Your task to perform on an android device: Show me the alarms in the clock app Image 0: 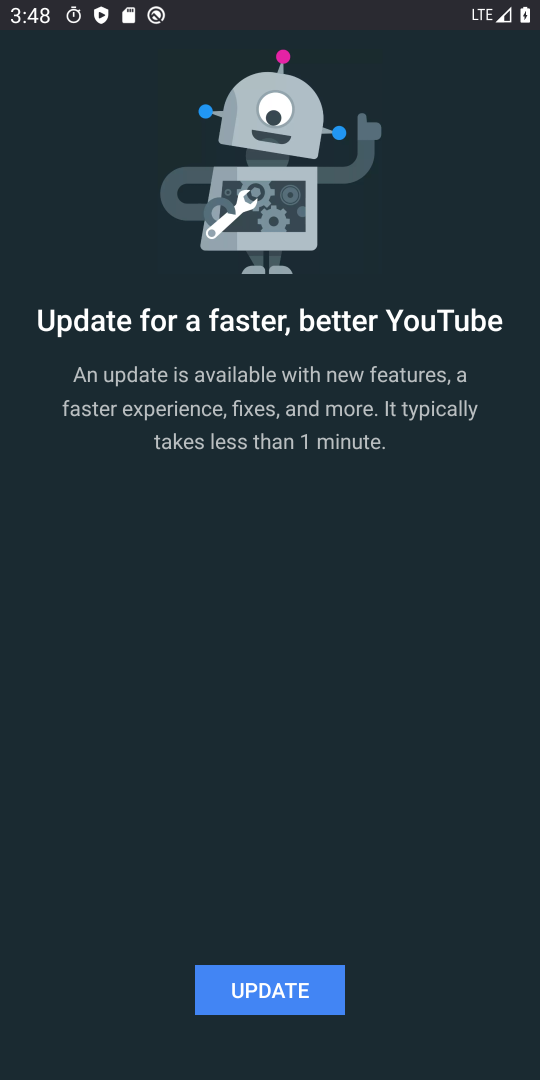
Step 0: press home button
Your task to perform on an android device: Show me the alarms in the clock app Image 1: 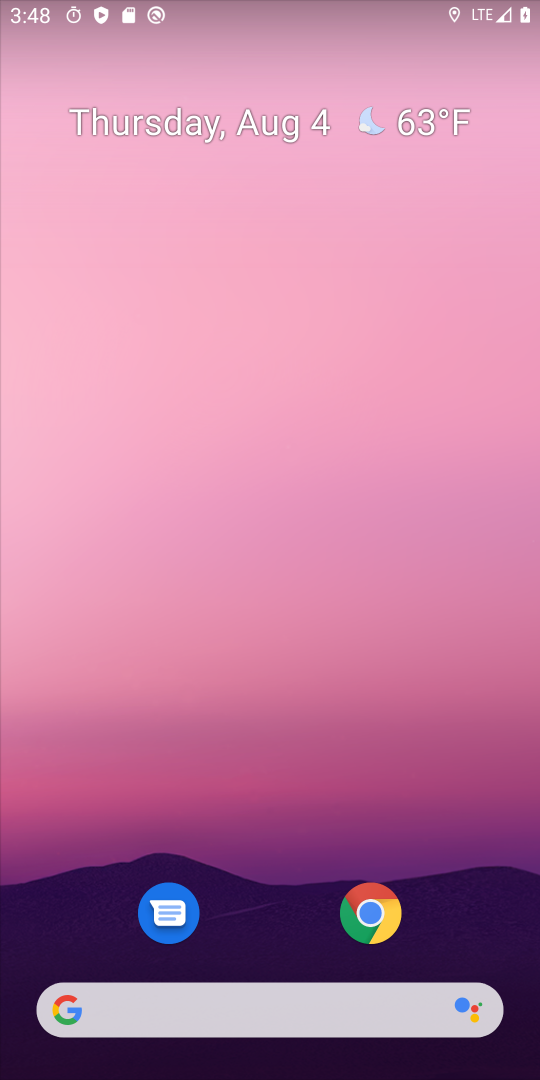
Step 1: drag from (373, 1032) to (421, 3)
Your task to perform on an android device: Show me the alarms in the clock app Image 2: 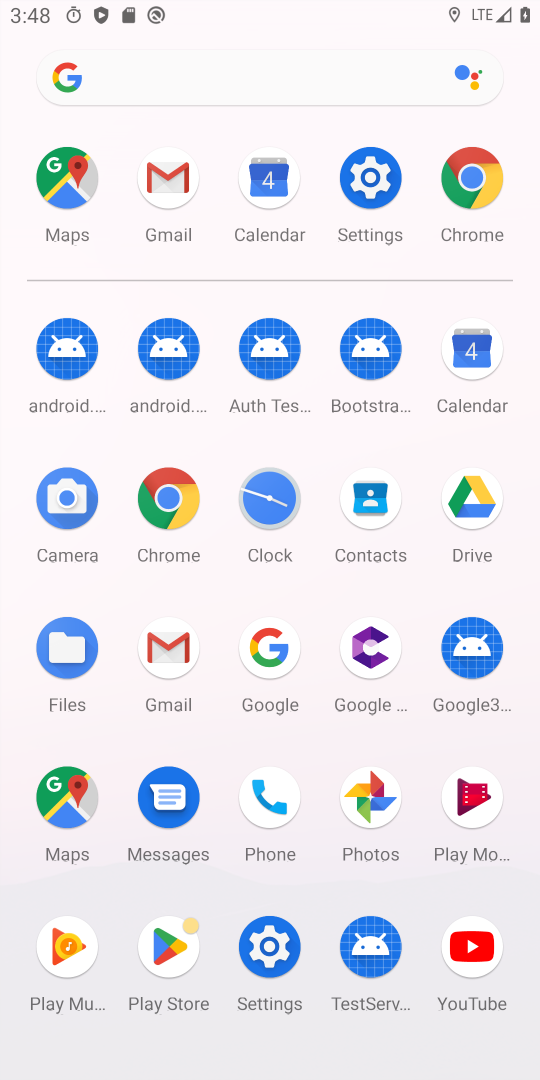
Step 2: click (270, 505)
Your task to perform on an android device: Show me the alarms in the clock app Image 3: 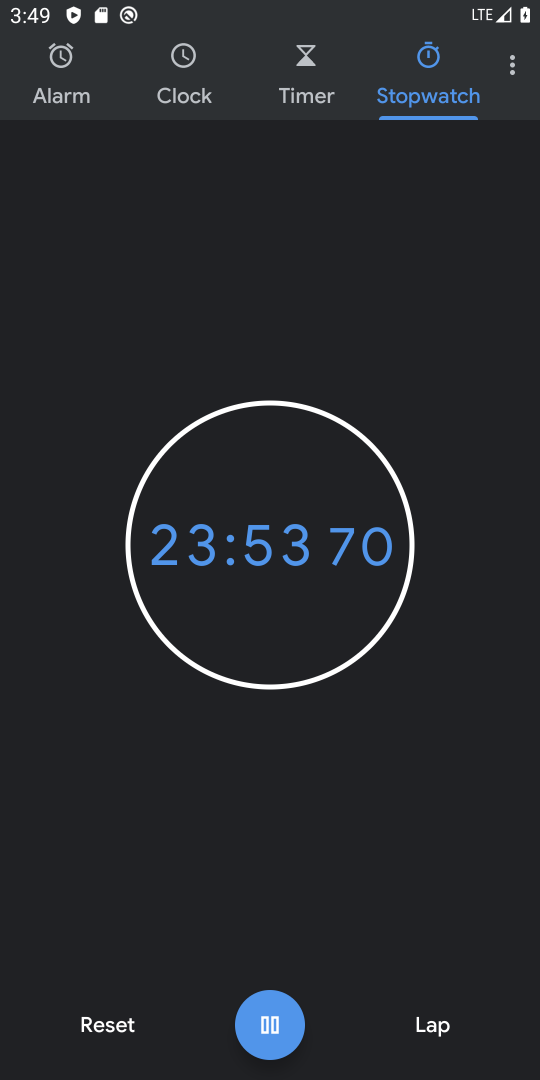
Step 3: click (41, 75)
Your task to perform on an android device: Show me the alarms in the clock app Image 4: 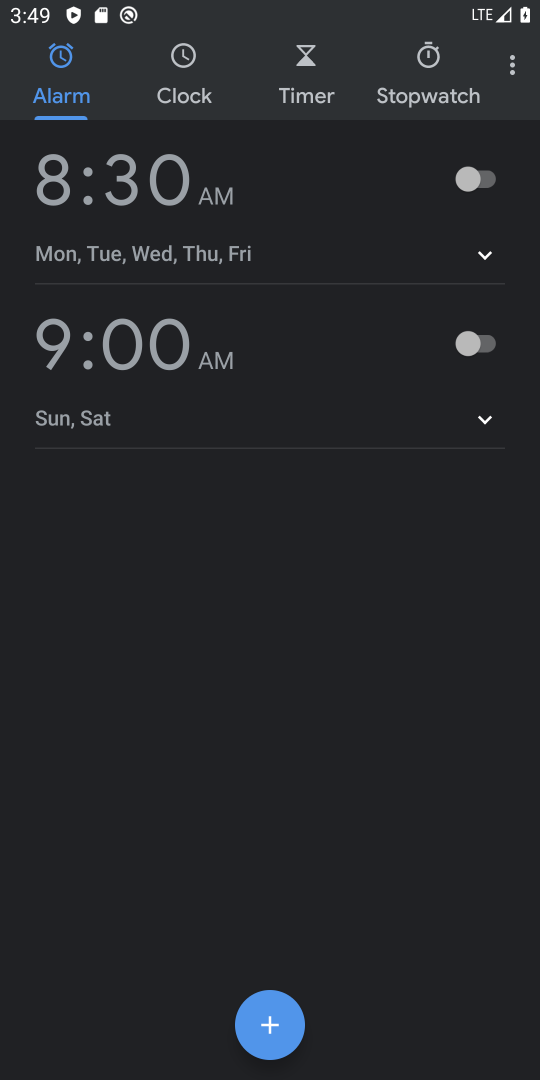
Step 4: task complete